Your task to perform on an android device: Open Chrome and go to settings Image 0: 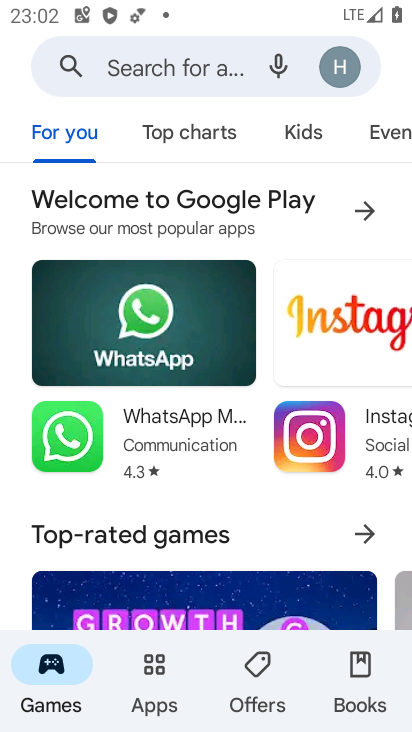
Step 0: press home button
Your task to perform on an android device: Open Chrome and go to settings Image 1: 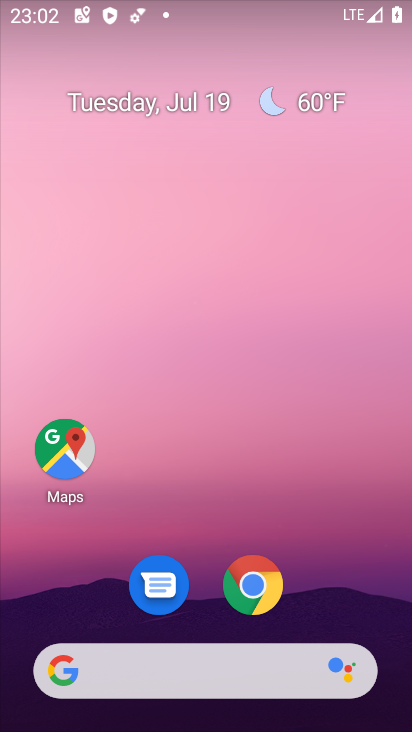
Step 1: click (260, 593)
Your task to perform on an android device: Open Chrome and go to settings Image 2: 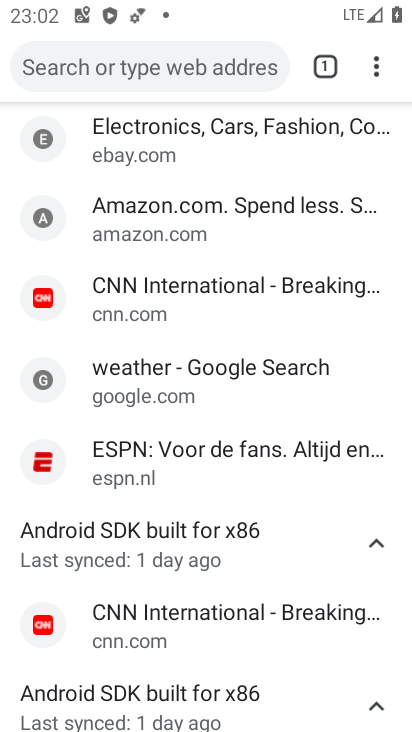
Step 2: click (373, 67)
Your task to perform on an android device: Open Chrome and go to settings Image 3: 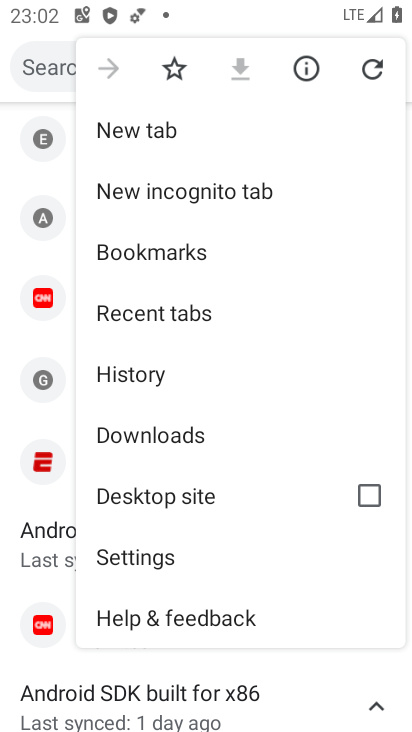
Step 3: click (161, 551)
Your task to perform on an android device: Open Chrome and go to settings Image 4: 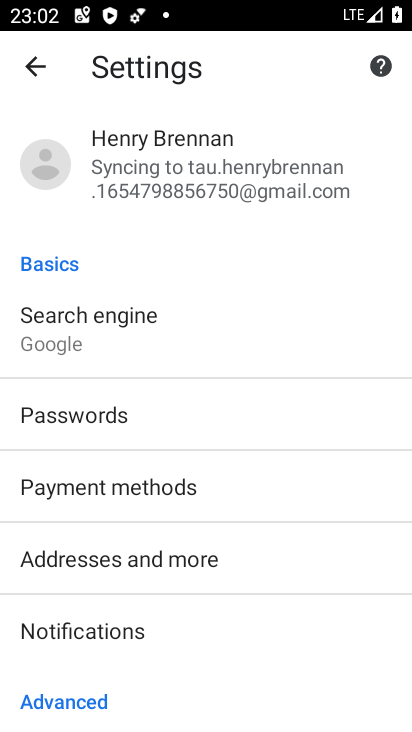
Step 4: task complete